Your task to perform on an android device: Turn off the flashlight Image 0: 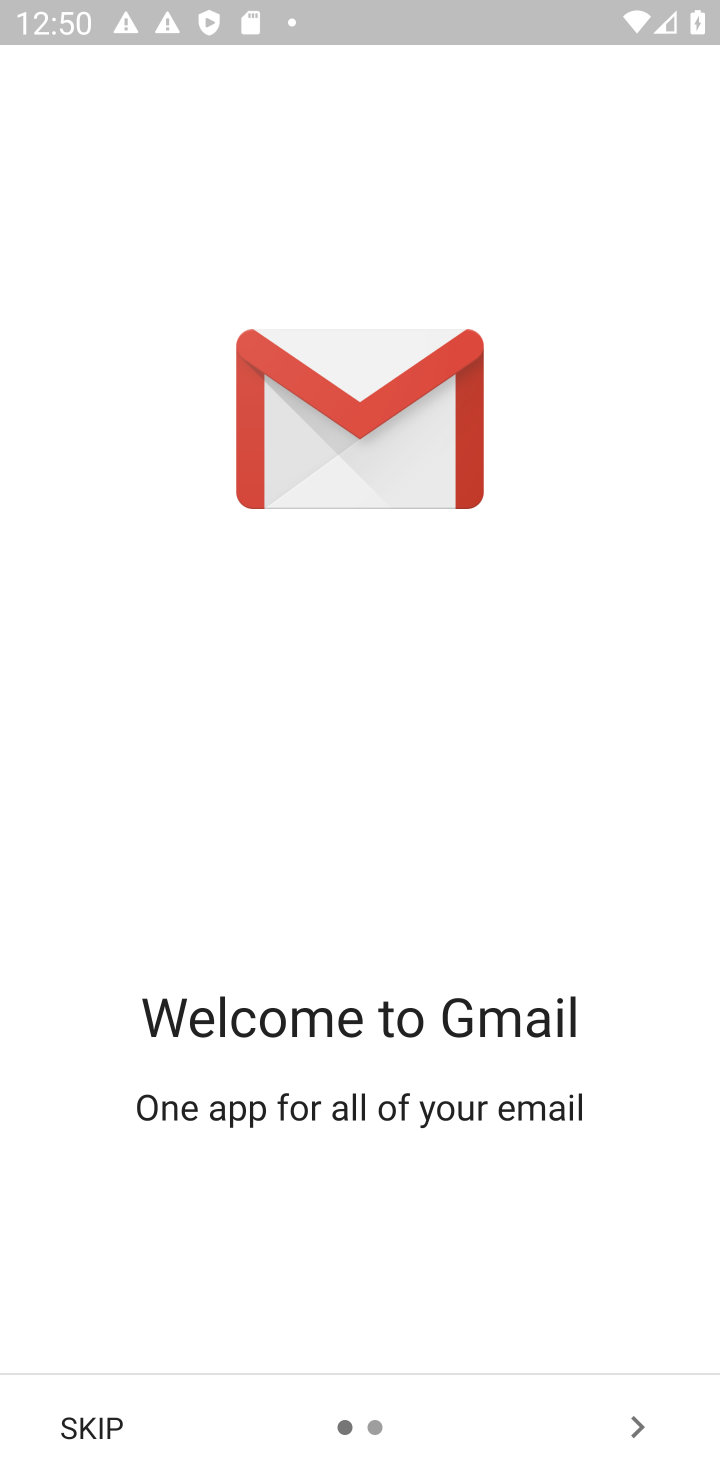
Step 0: press home button
Your task to perform on an android device: Turn off the flashlight Image 1: 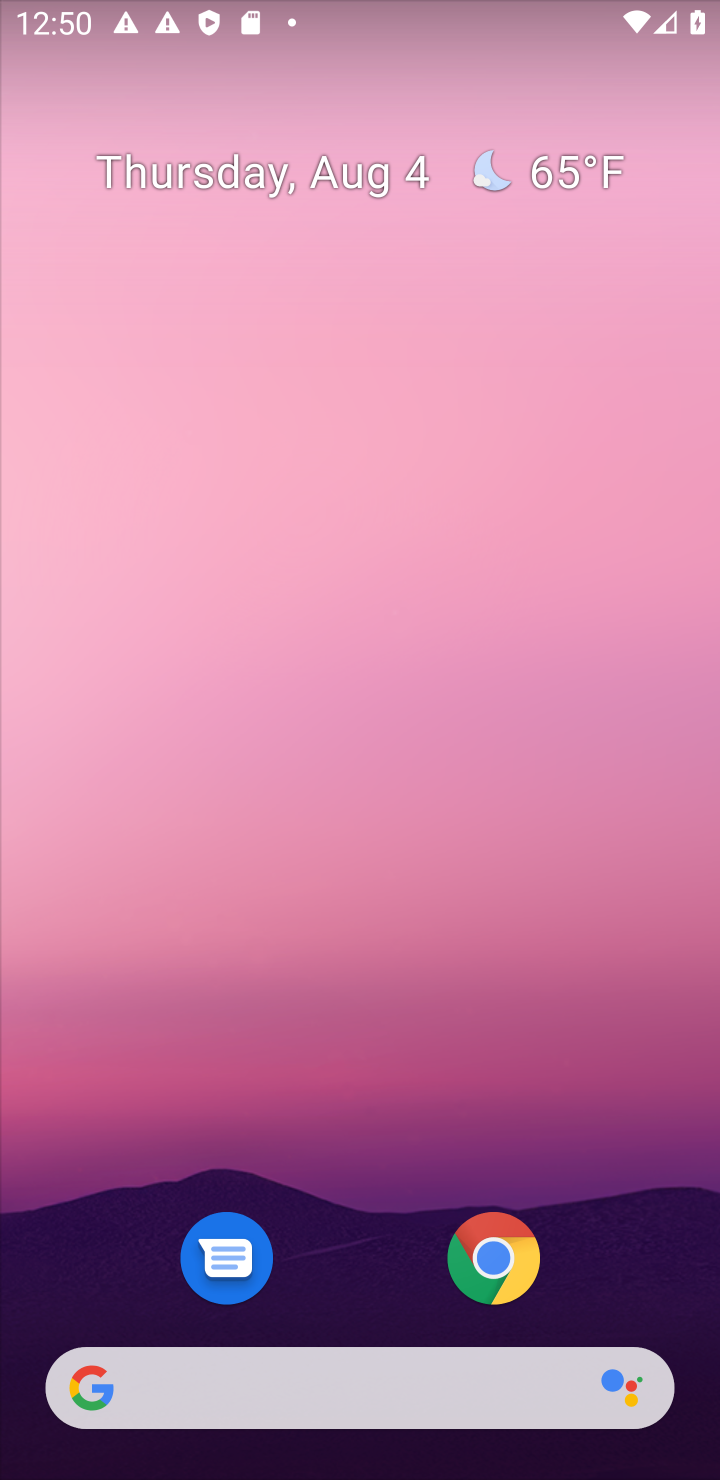
Step 1: click (332, 432)
Your task to perform on an android device: Turn off the flashlight Image 2: 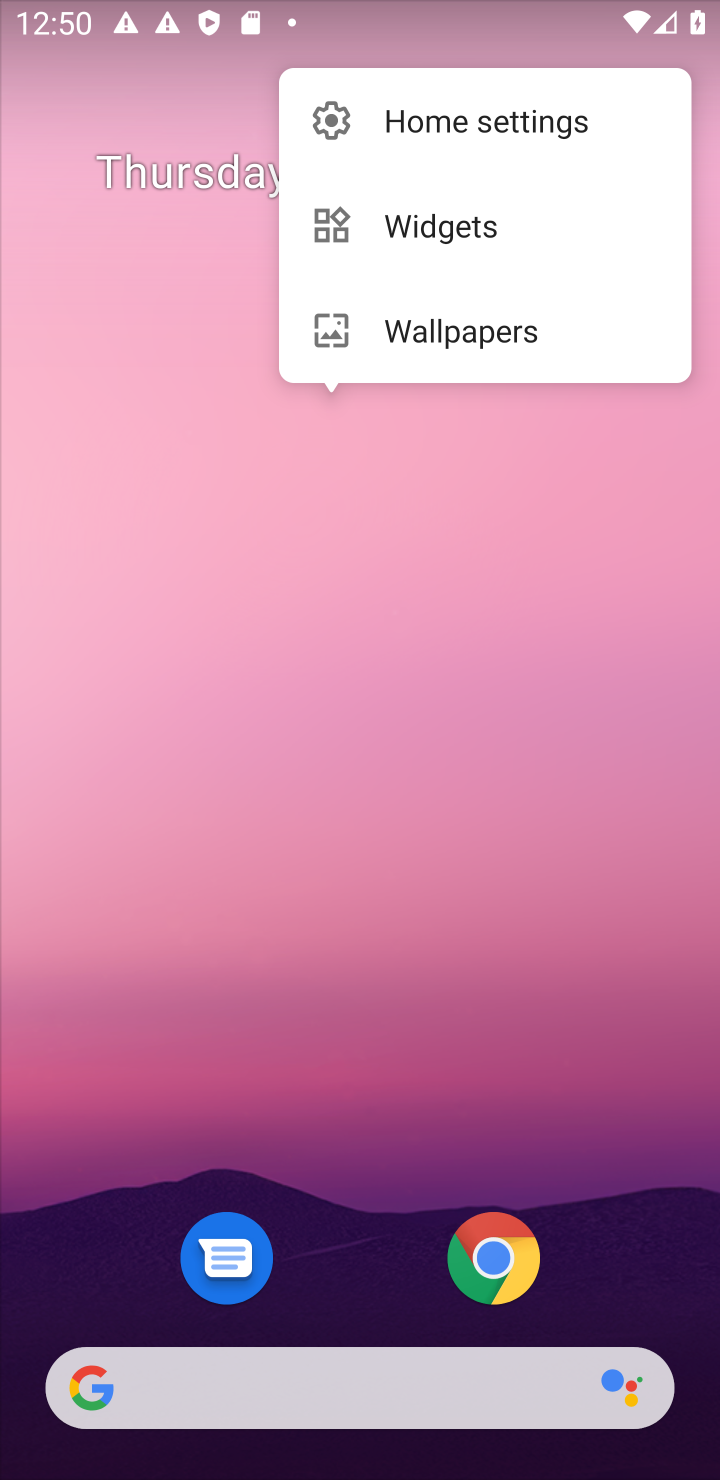
Step 2: click (375, 1255)
Your task to perform on an android device: Turn off the flashlight Image 3: 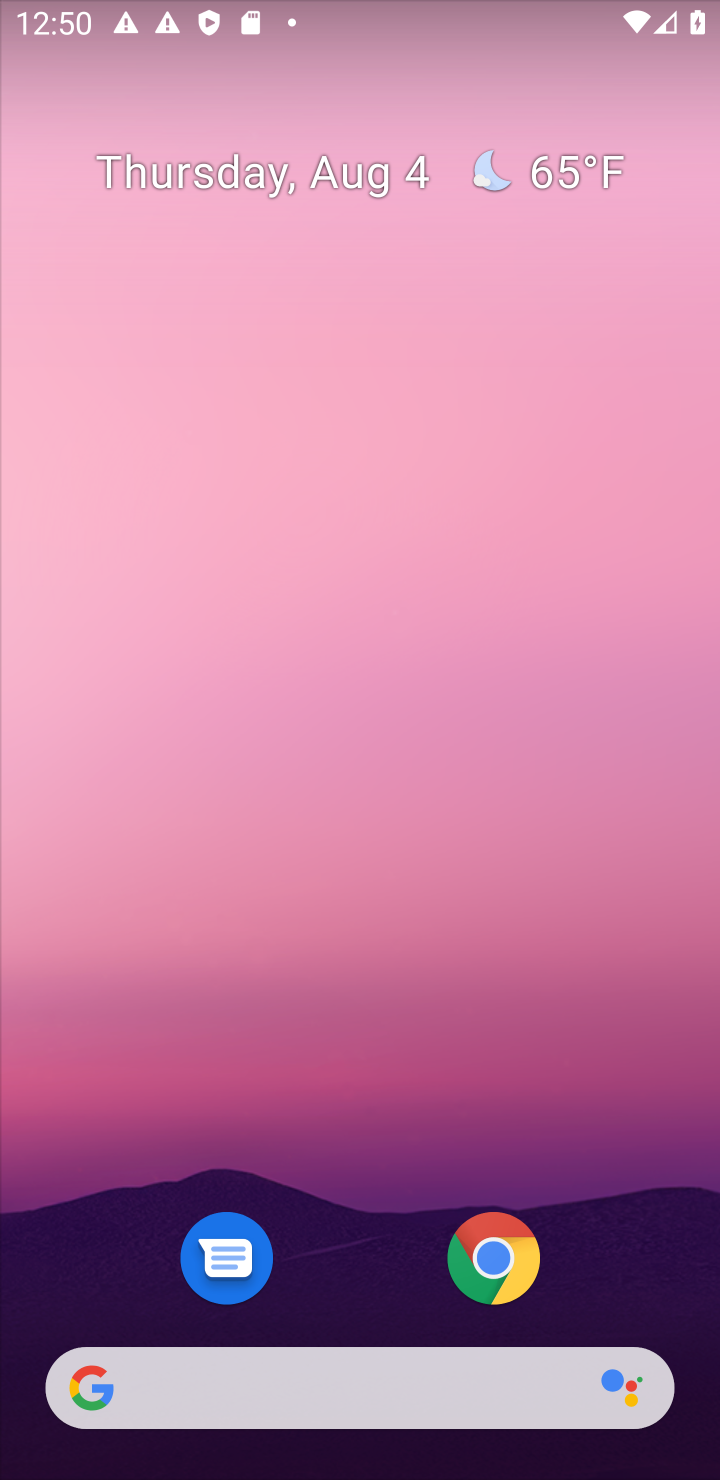
Step 3: task complete